Your task to perform on an android device: toggle wifi Image 0: 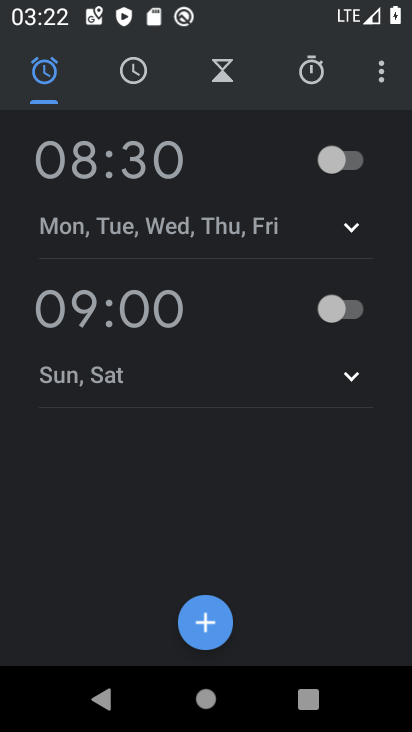
Step 0: drag from (228, 11) to (162, 608)
Your task to perform on an android device: toggle wifi Image 1: 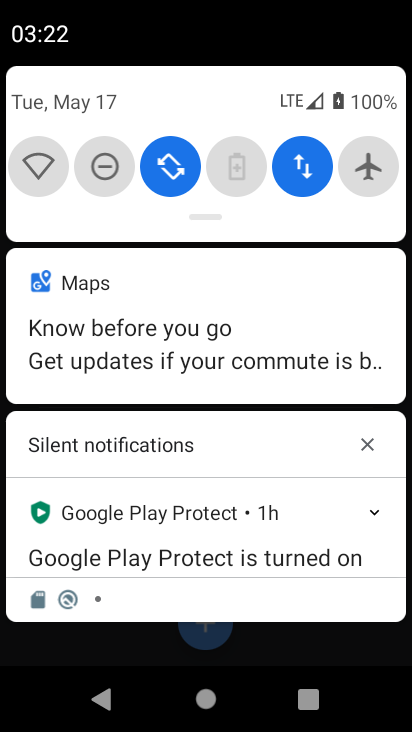
Step 1: click (42, 183)
Your task to perform on an android device: toggle wifi Image 2: 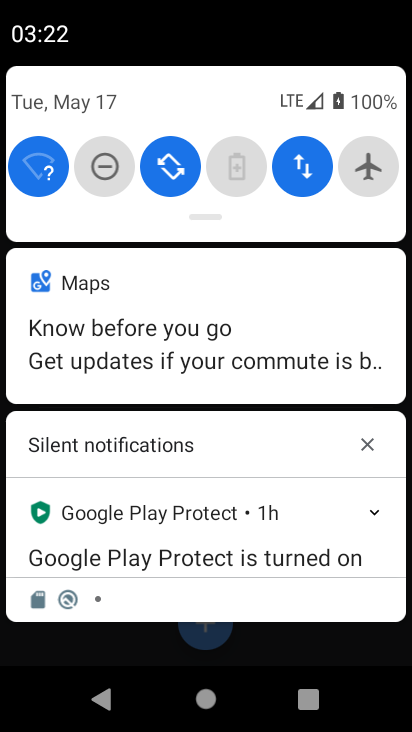
Step 2: click (42, 183)
Your task to perform on an android device: toggle wifi Image 3: 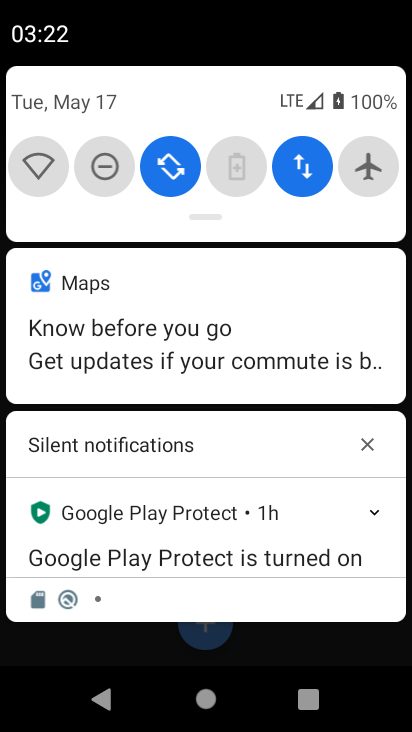
Step 3: click (42, 183)
Your task to perform on an android device: toggle wifi Image 4: 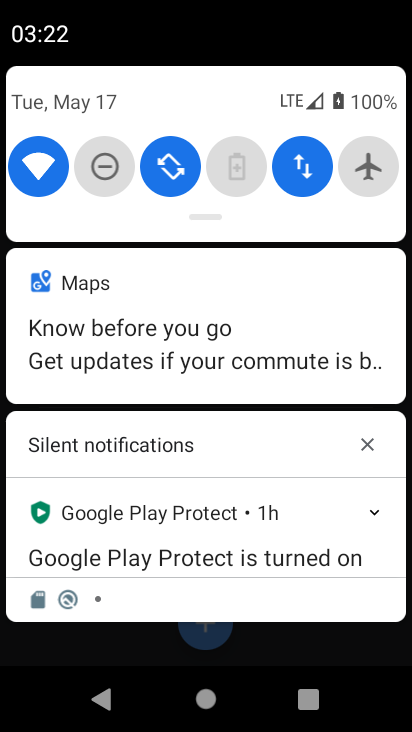
Step 4: task complete